Your task to perform on an android device: toggle javascript in the chrome app Image 0: 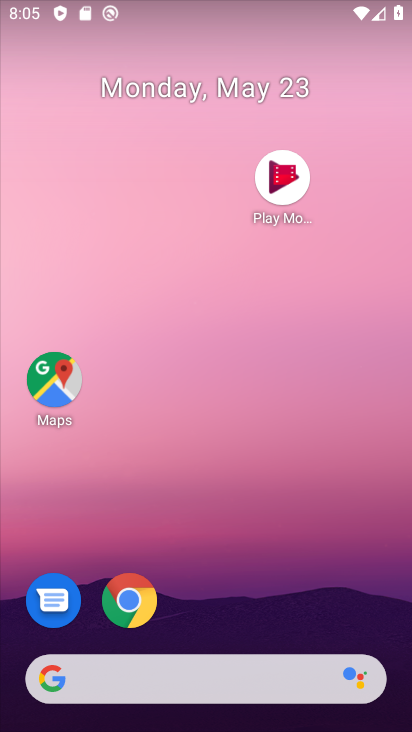
Step 0: drag from (279, 684) to (411, 498)
Your task to perform on an android device: toggle javascript in the chrome app Image 1: 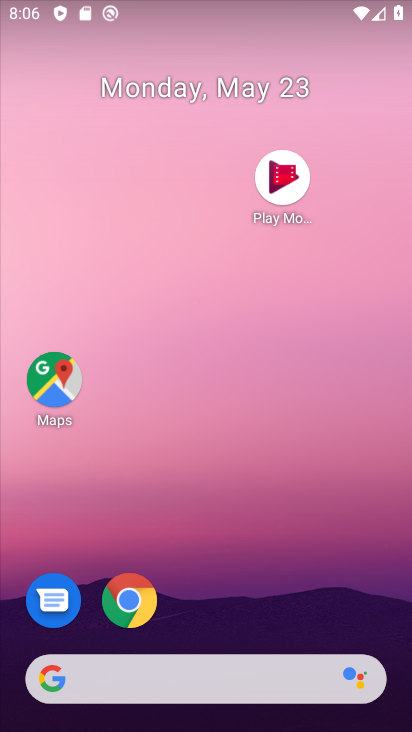
Step 1: click (365, 142)
Your task to perform on an android device: toggle javascript in the chrome app Image 2: 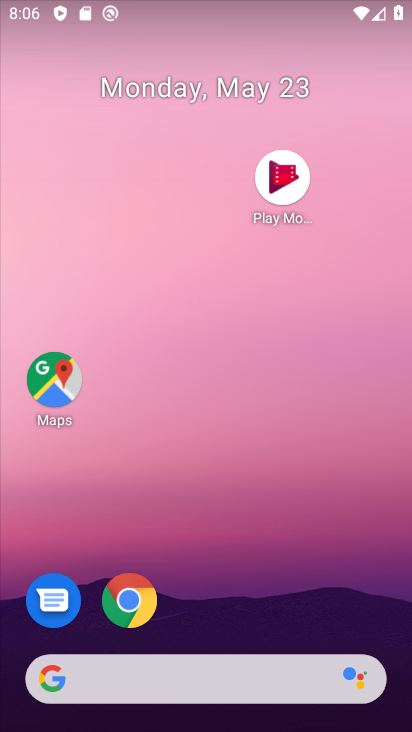
Step 2: drag from (294, 645) to (258, 298)
Your task to perform on an android device: toggle javascript in the chrome app Image 3: 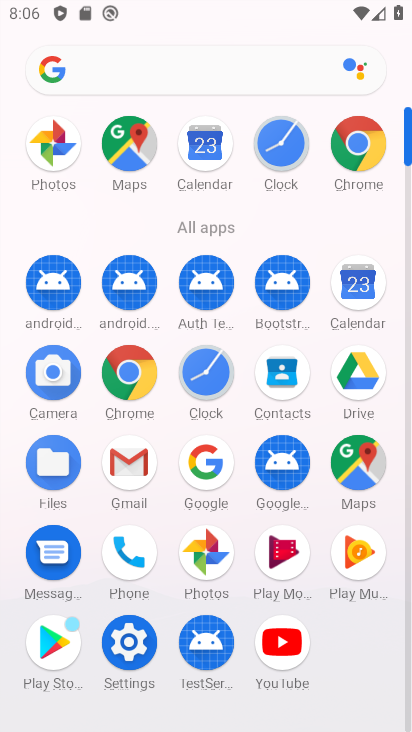
Step 3: drag from (303, 617) to (210, 205)
Your task to perform on an android device: toggle javascript in the chrome app Image 4: 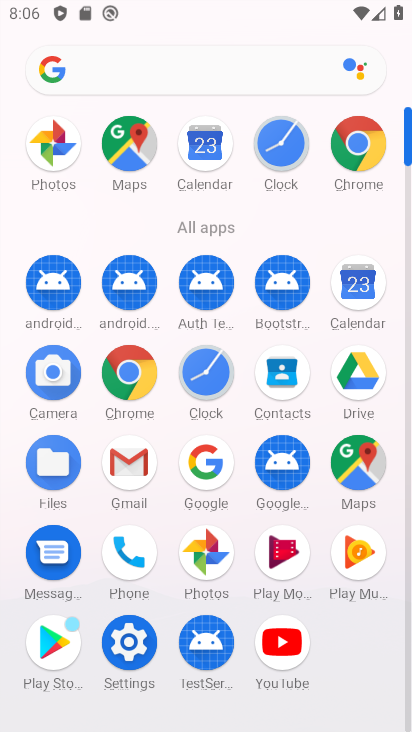
Step 4: drag from (187, 1) to (410, 157)
Your task to perform on an android device: toggle javascript in the chrome app Image 5: 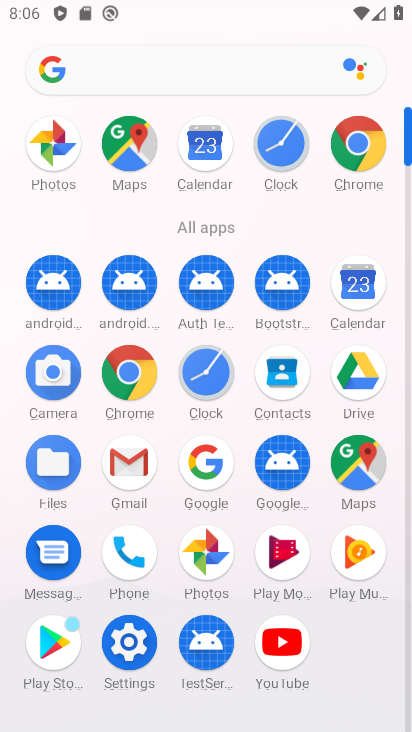
Step 5: click (351, 147)
Your task to perform on an android device: toggle javascript in the chrome app Image 6: 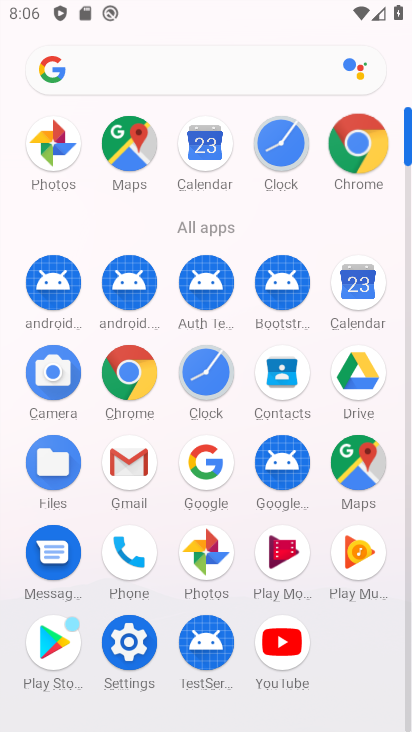
Step 6: click (351, 147)
Your task to perform on an android device: toggle javascript in the chrome app Image 7: 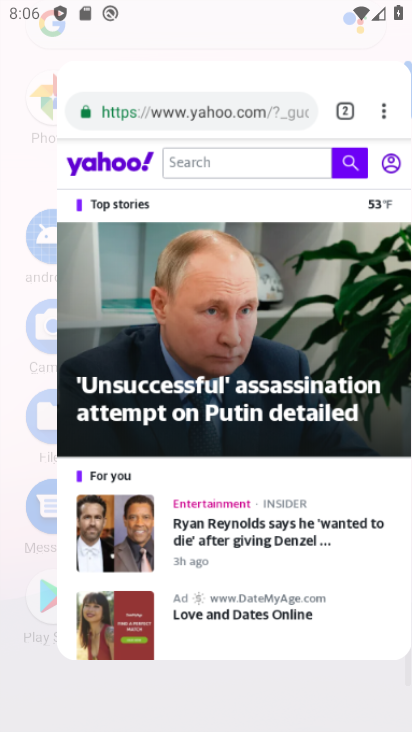
Step 7: click (351, 147)
Your task to perform on an android device: toggle javascript in the chrome app Image 8: 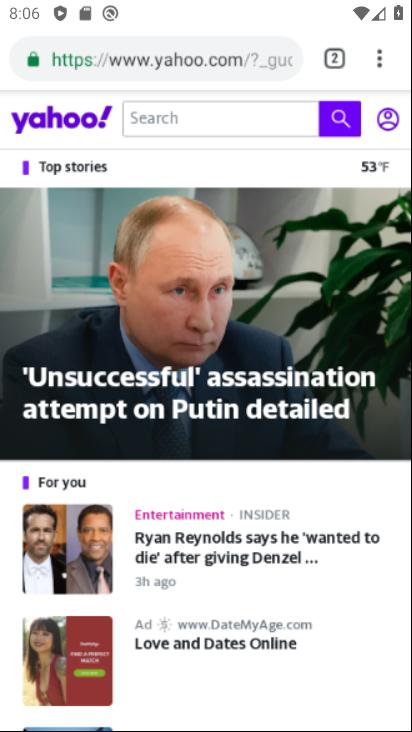
Step 8: click (352, 146)
Your task to perform on an android device: toggle javascript in the chrome app Image 9: 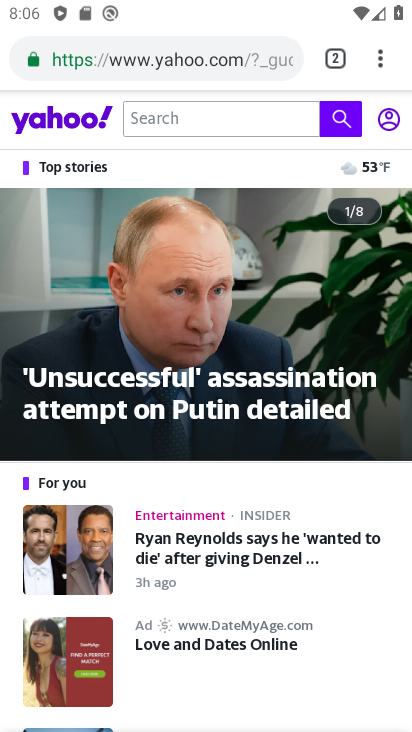
Step 9: drag from (380, 55) to (169, 619)
Your task to perform on an android device: toggle javascript in the chrome app Image 10: 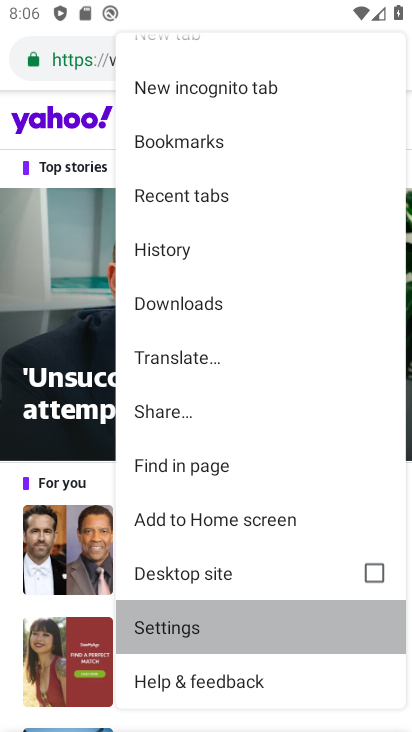
Step 10: click (169, 619)
Your task to perform on an android device: toggle javascript in the chrome app Image 11: 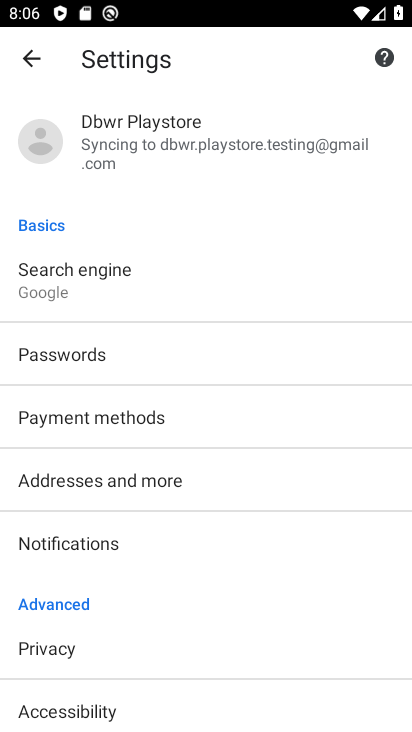
Step 11: drag from (141, 598) to (111, 293)
Your task to perform on an android device: toggle javascript in the chrome app Image 12: 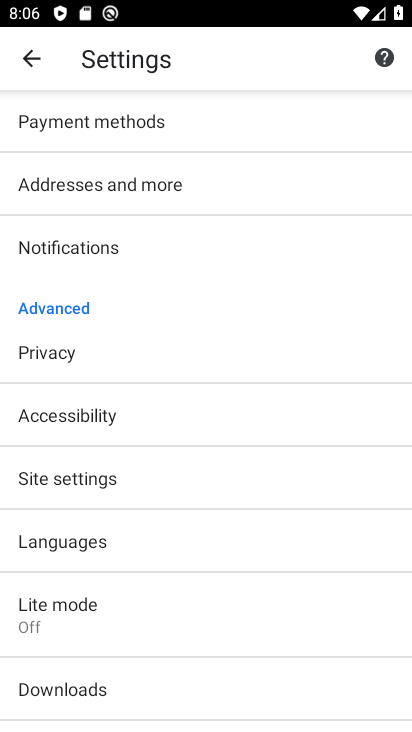
Step 12: click (54, 479)
Your task to perform on an android device: toggle javascript in the chrome app Image 13: 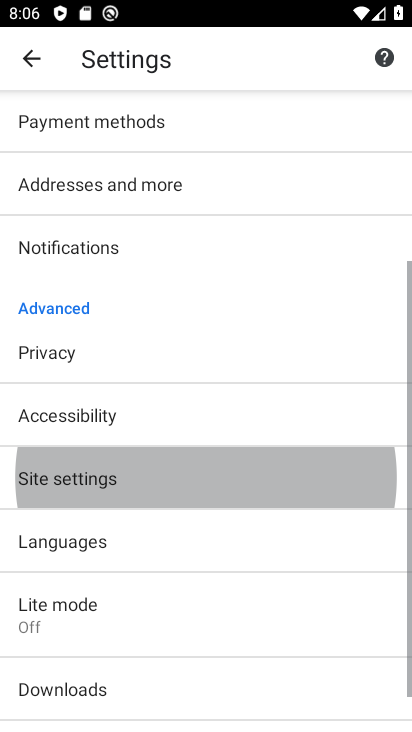
Step 13: click (54, 479)
Your task to perform on an android device: toggle javascript in the chrome app Image 14: 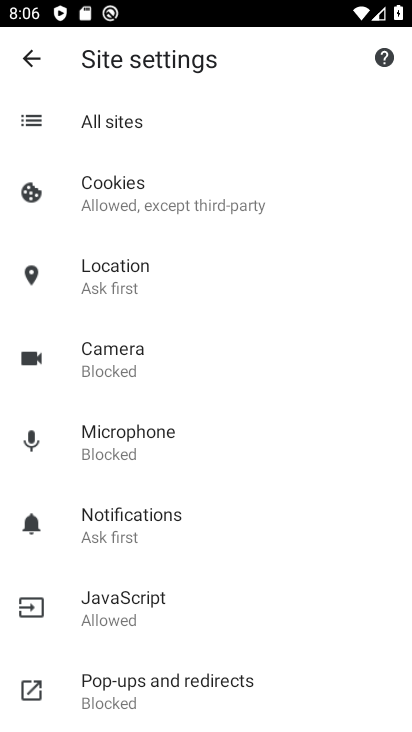
Step 14: click (109, 615)
Your task to perform on an android device: toggle javascript in the chrome app Image 15: 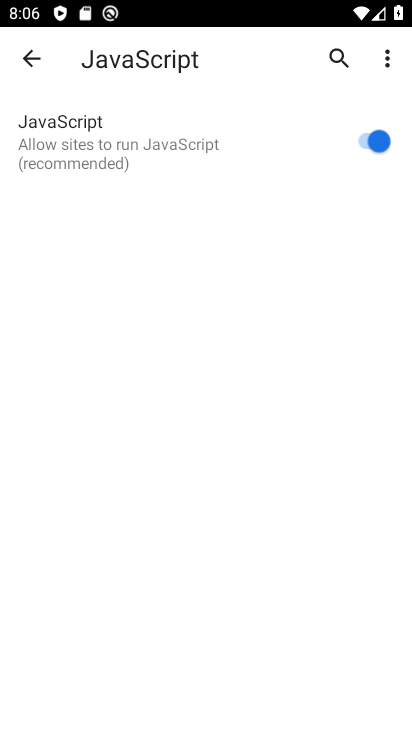
Step 15: click (369, 134)
Your task to perform on an android device: toggle javascript in the chrome app Image 16: 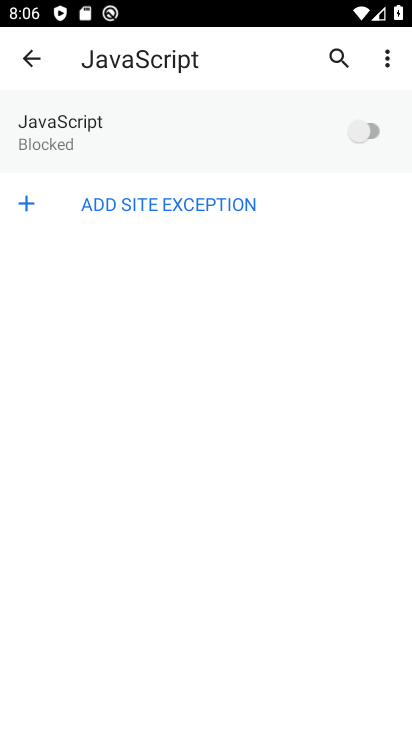
Step 16: click (376, 133)
Your task to perform on an android device: toggle javascript in the chrome app Image 17: 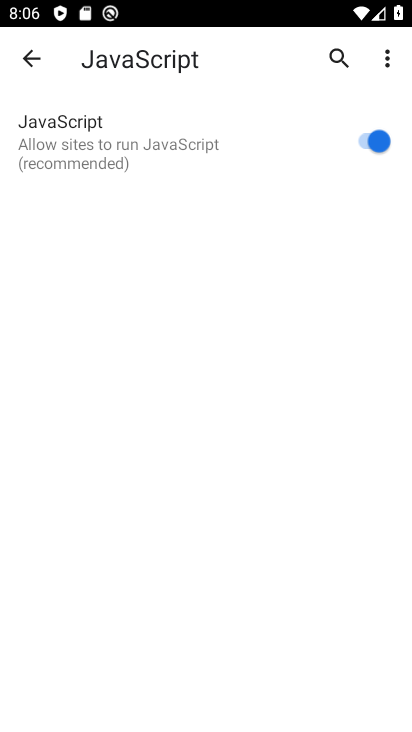
Step 17: click (375, 143)
Your task to perform on an android device: toggle javascript in the chrome app Image 18: 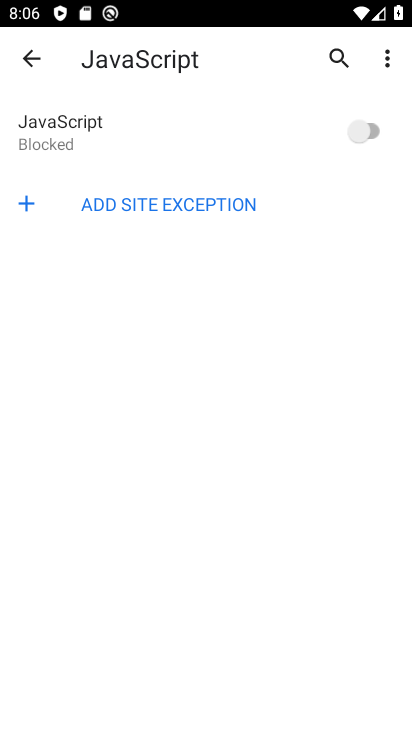
Step 18: task complete